Your task to perform on an android device: Play the new Taylor Swift video on YouTube Image 0: 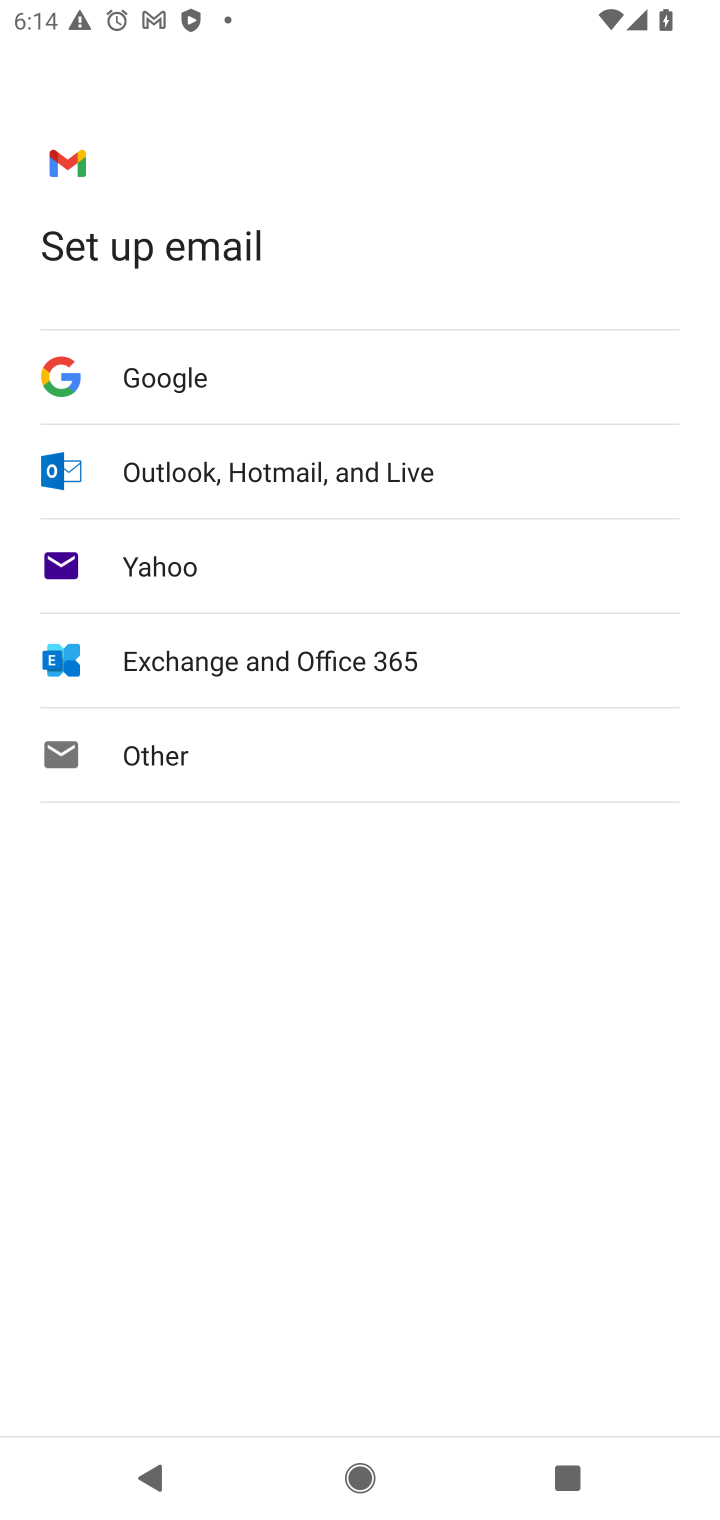
Step 0: press home button
Your task to perform on an android device: Play the new Taylor Swift video on YouTube Image 1: 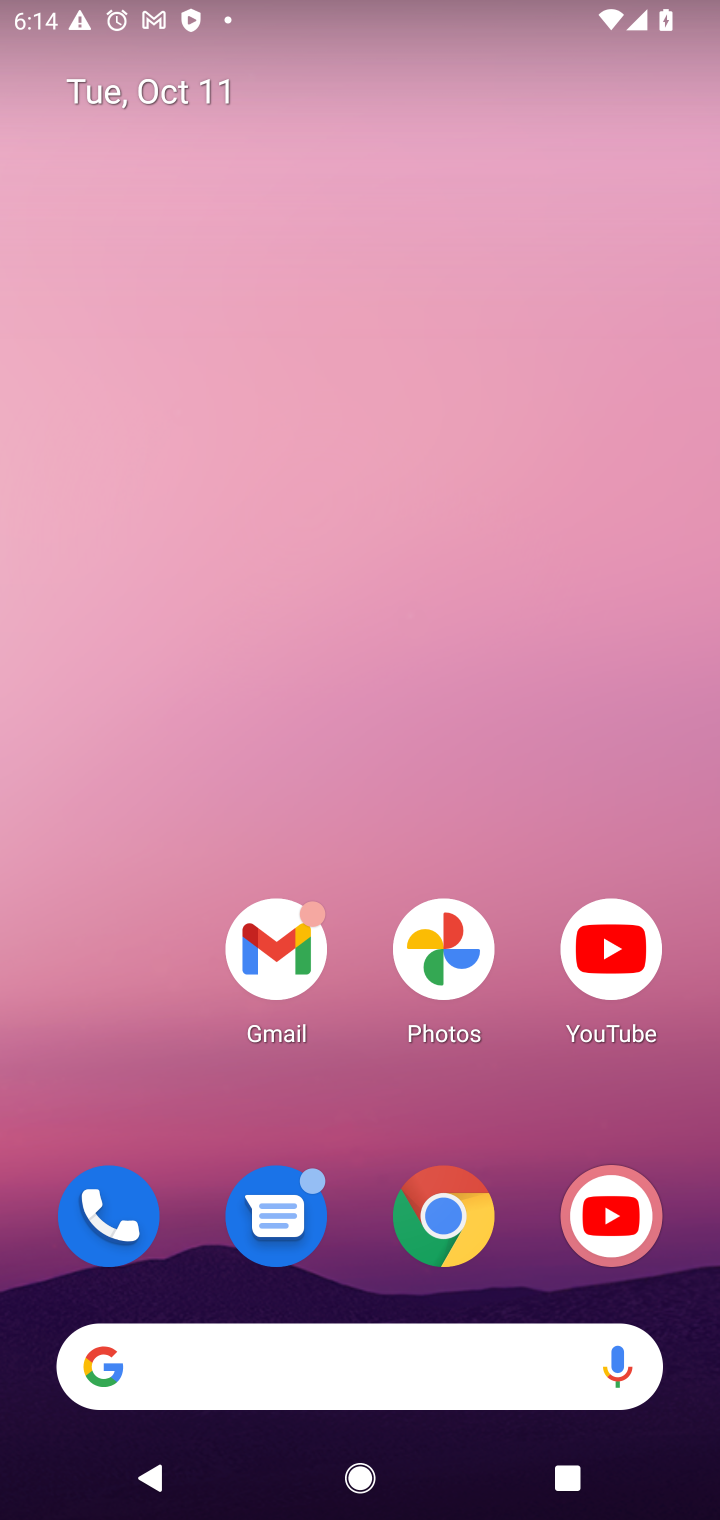
Step 1: click (593, 1204)
Your task to perform on an android device: Play the new Taylor Swift video on YouTube Image 2: 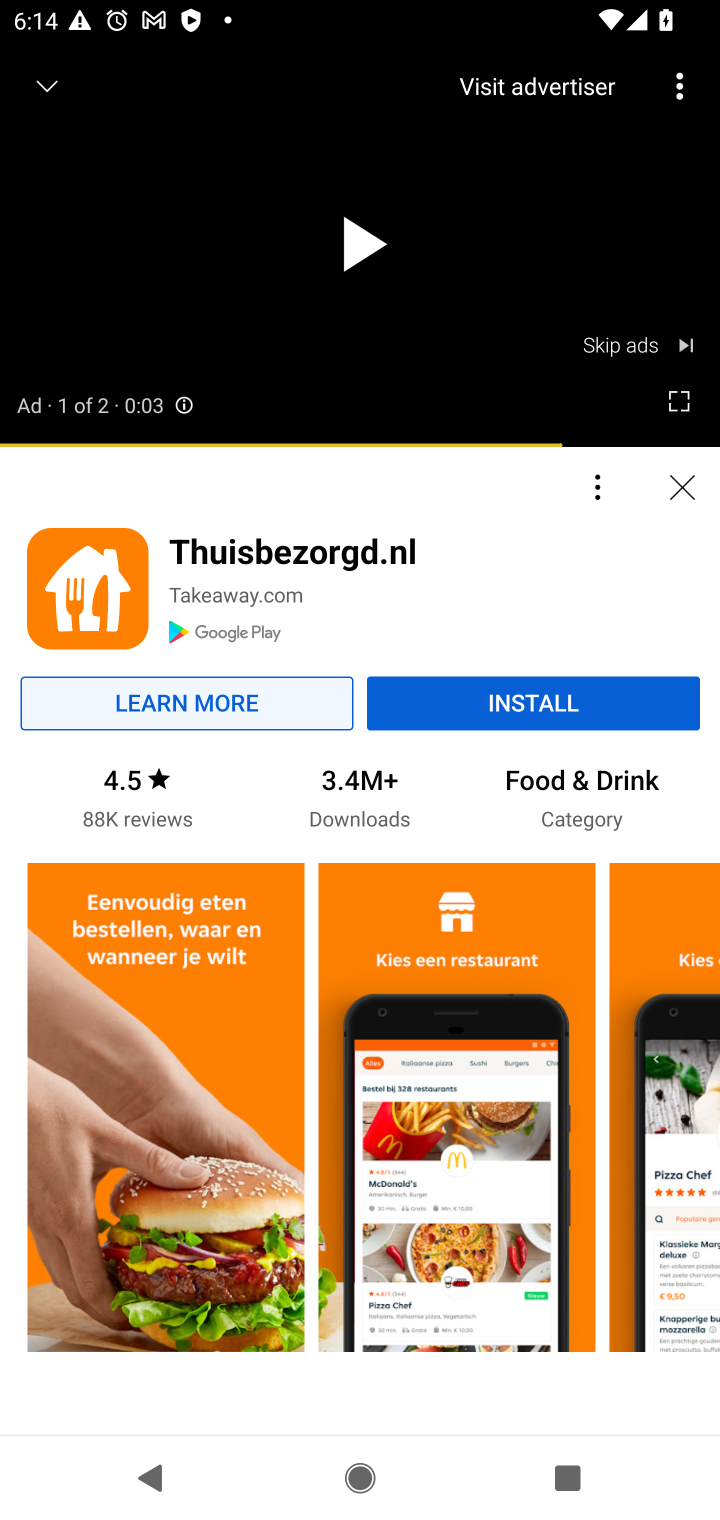
Step 2: click (49, 85)
Your task to perform on an android device: Play the new Taylor Swift video on YouTube Image 3: 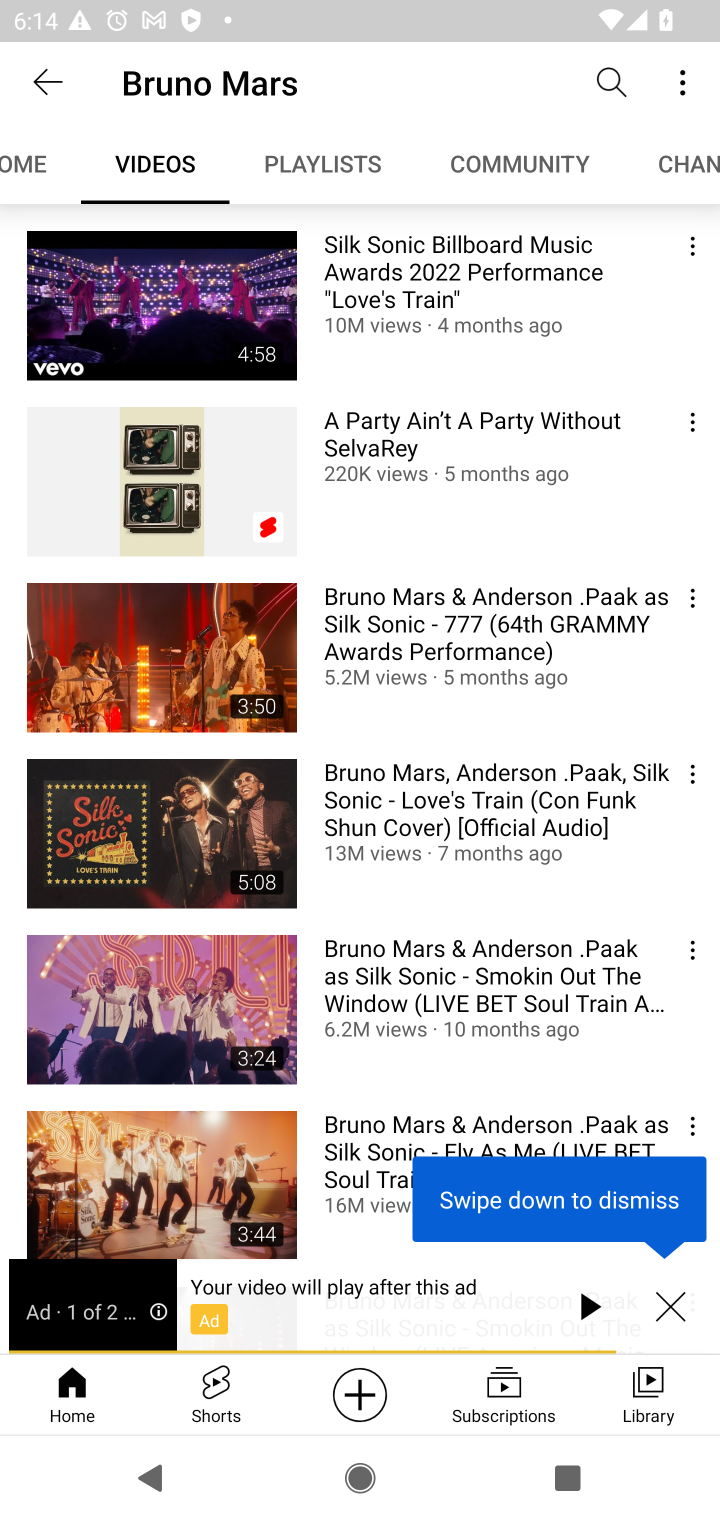
Step 3: click (67, 67)
Your task to perform on an android device: Play the new Taylor Swift video on YouTube Image 4: 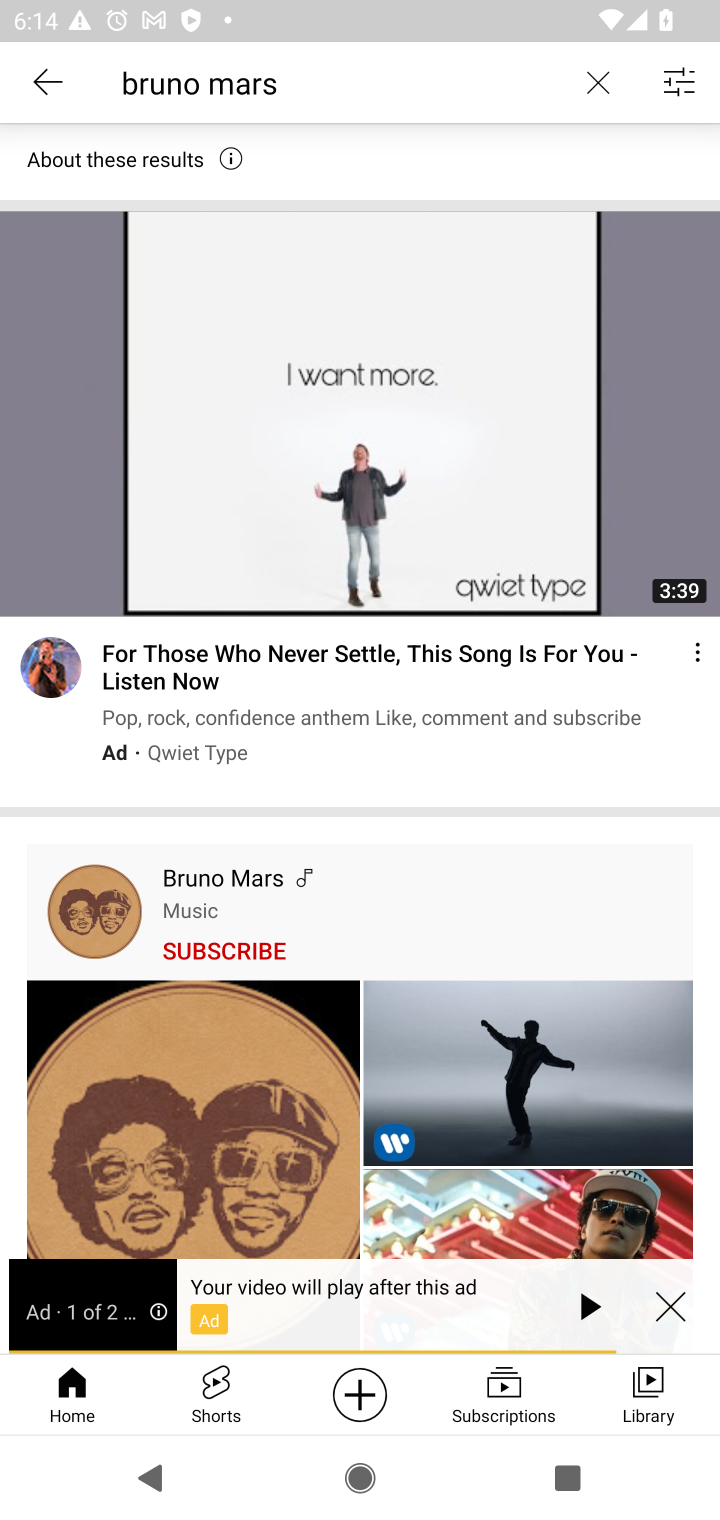
Step 4: click (595, 76)
Your task to perform on an android device: Play the new Taylor Swift video on YouTube Image 5: 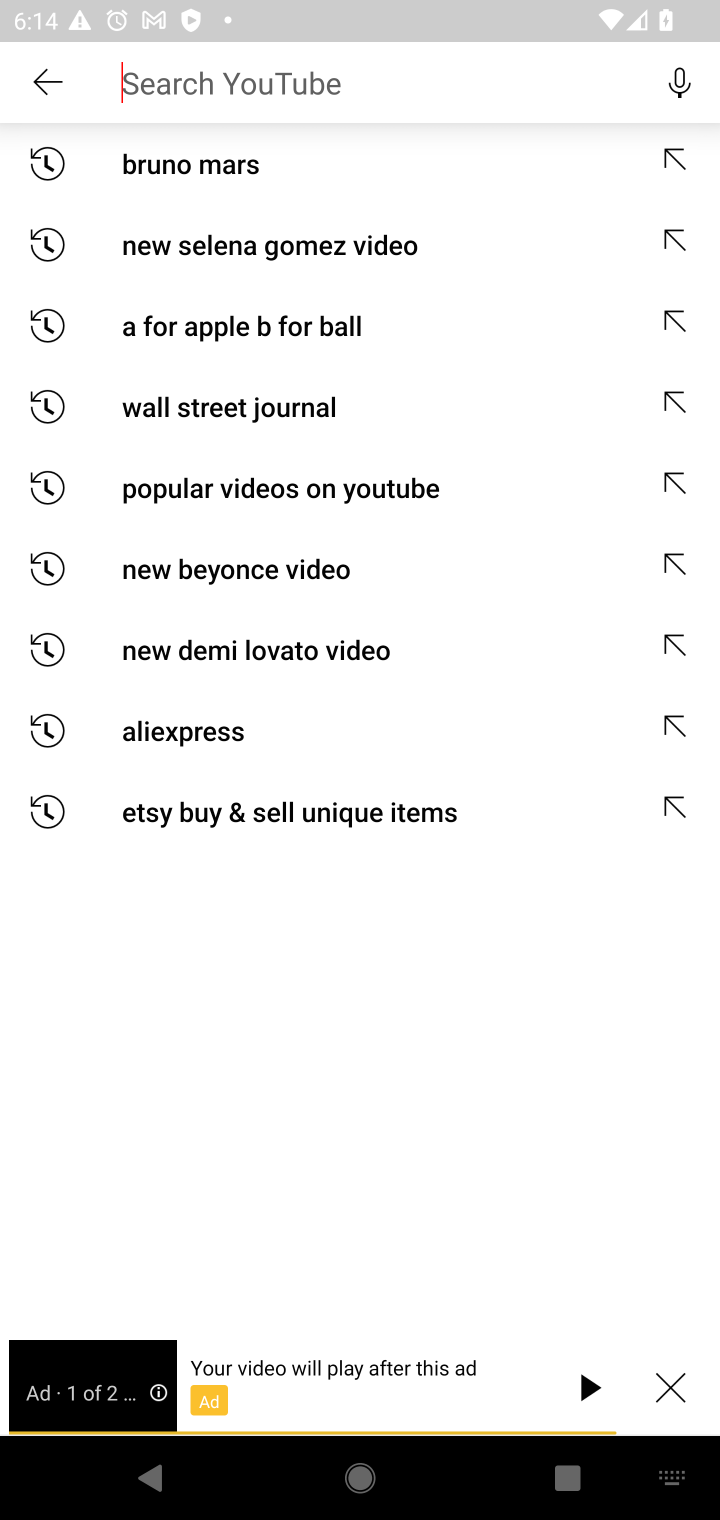
Step 5: type "taylor swift"
Your task to perform on an android device: Play the new Taylor Swift video on YouTube Image 6: 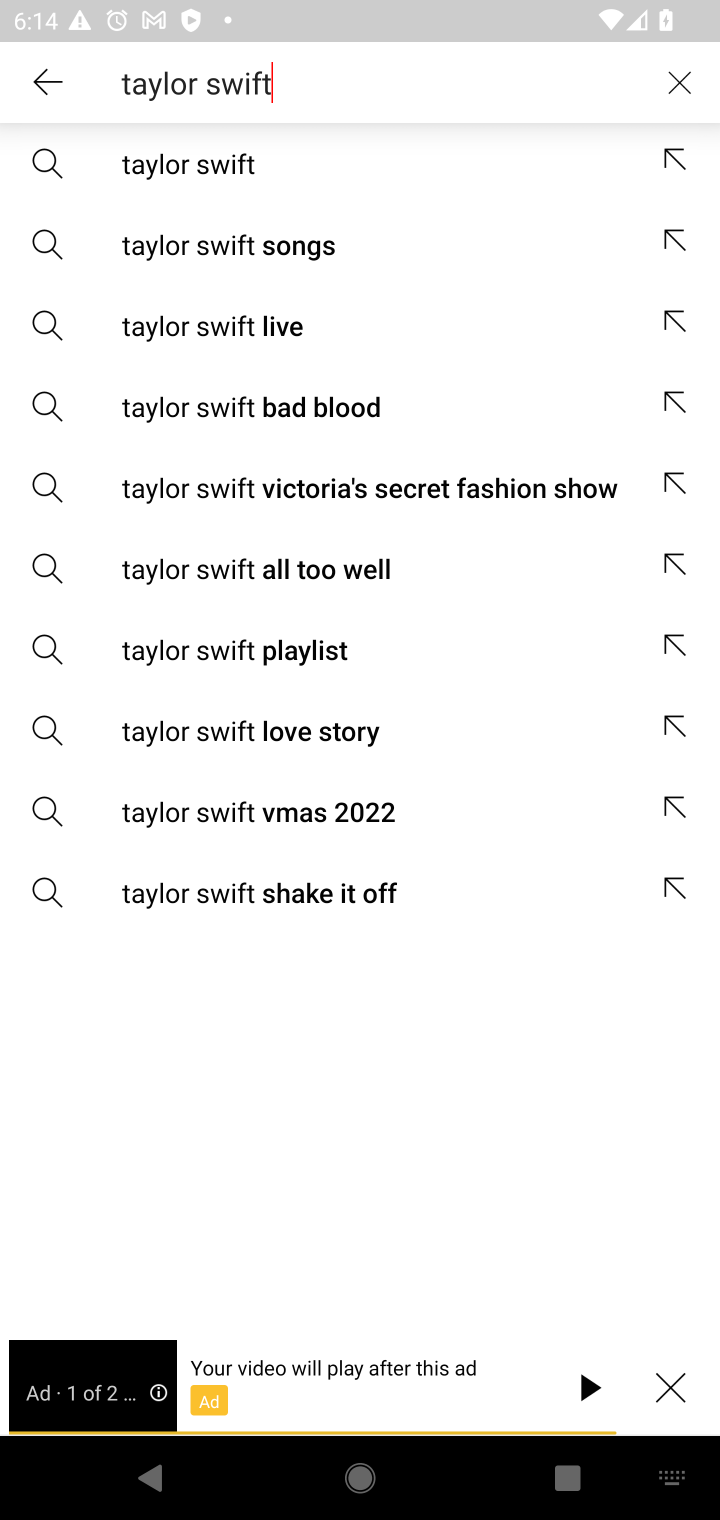
Step 6: click (165, 174)
Your task to perform on an android device: Play the new Taylor Swift video on YouTube Image 7: 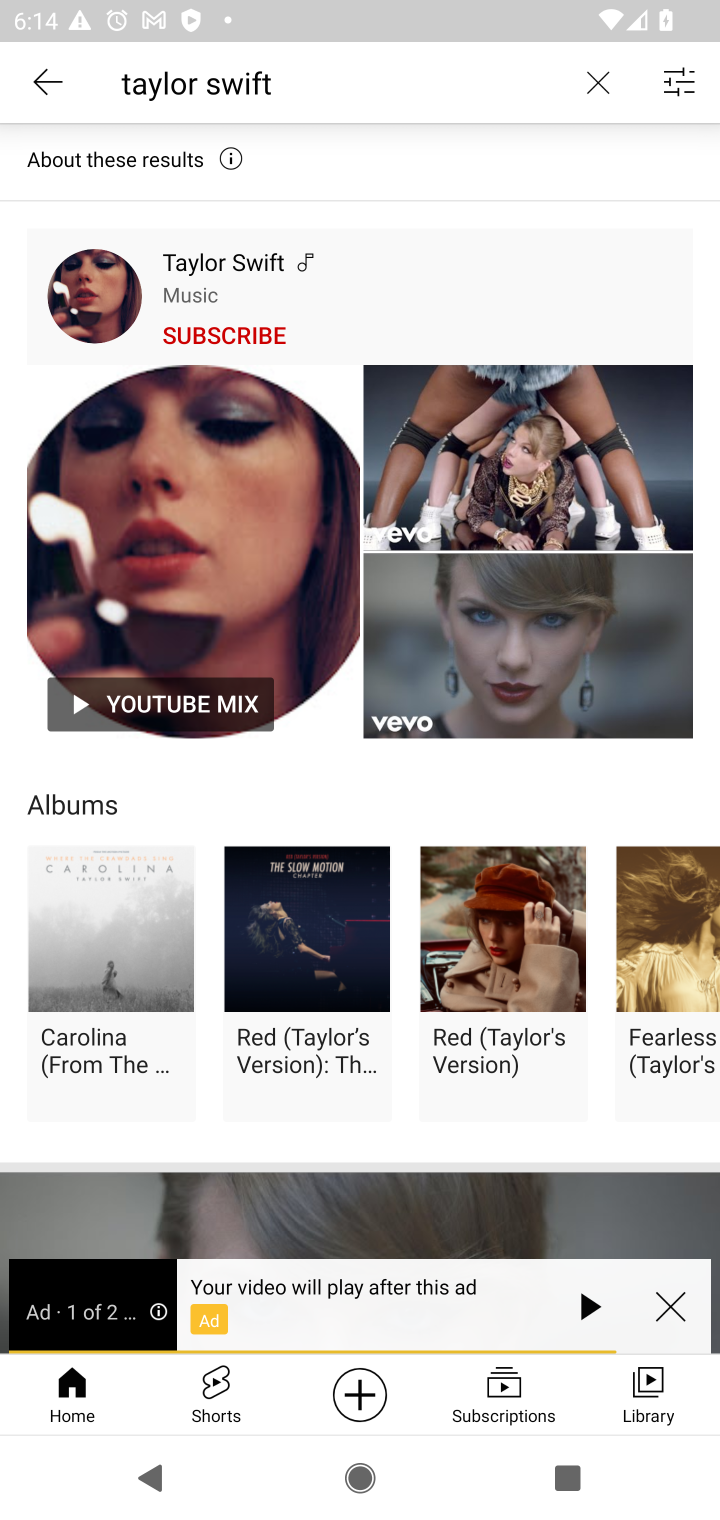
Step 7: click (91, 300)
Your task to perform on an android device: Play the new Taylor Swift video on YouTube Image 8: 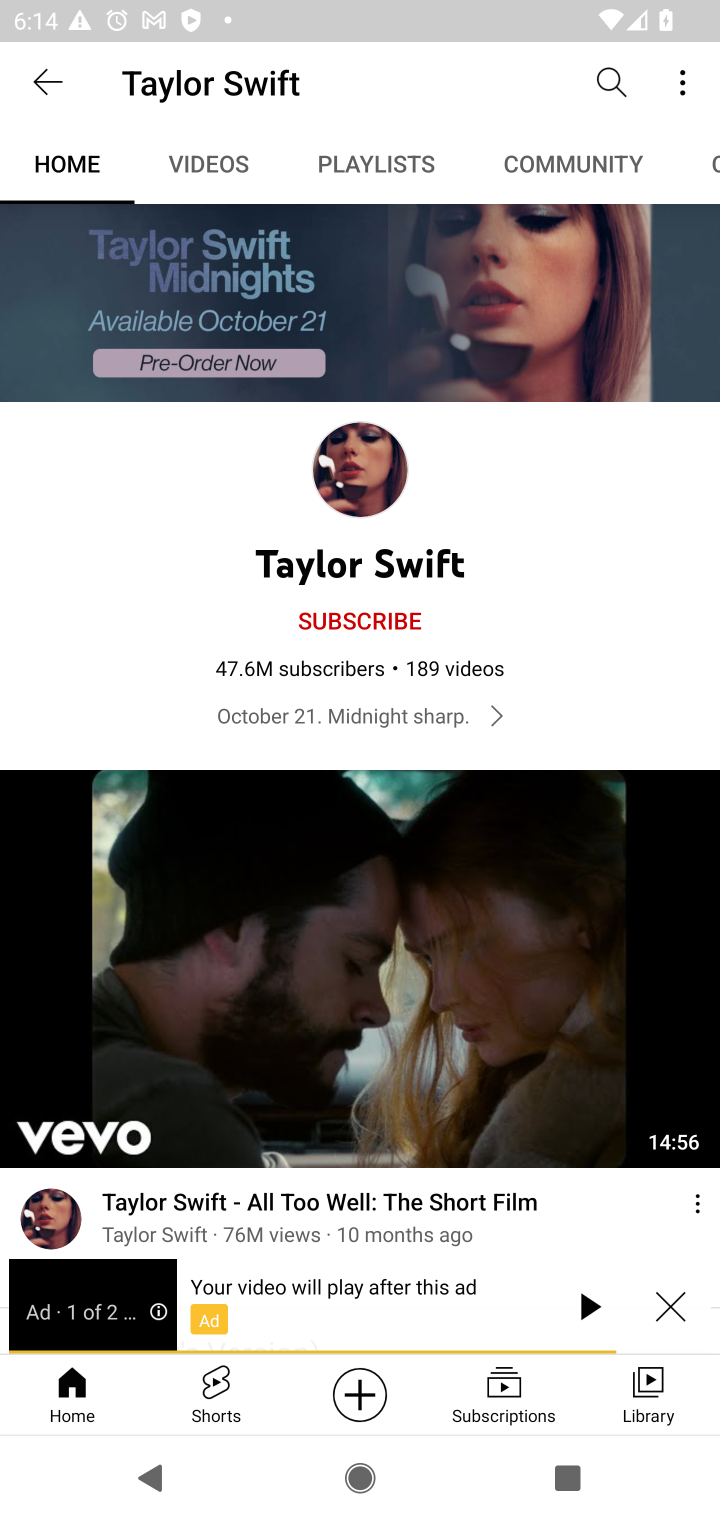
Step 8: click (374, 525)
Your task to perform on an android device: Play the new Taylor Swift video on YouTube Image 9: 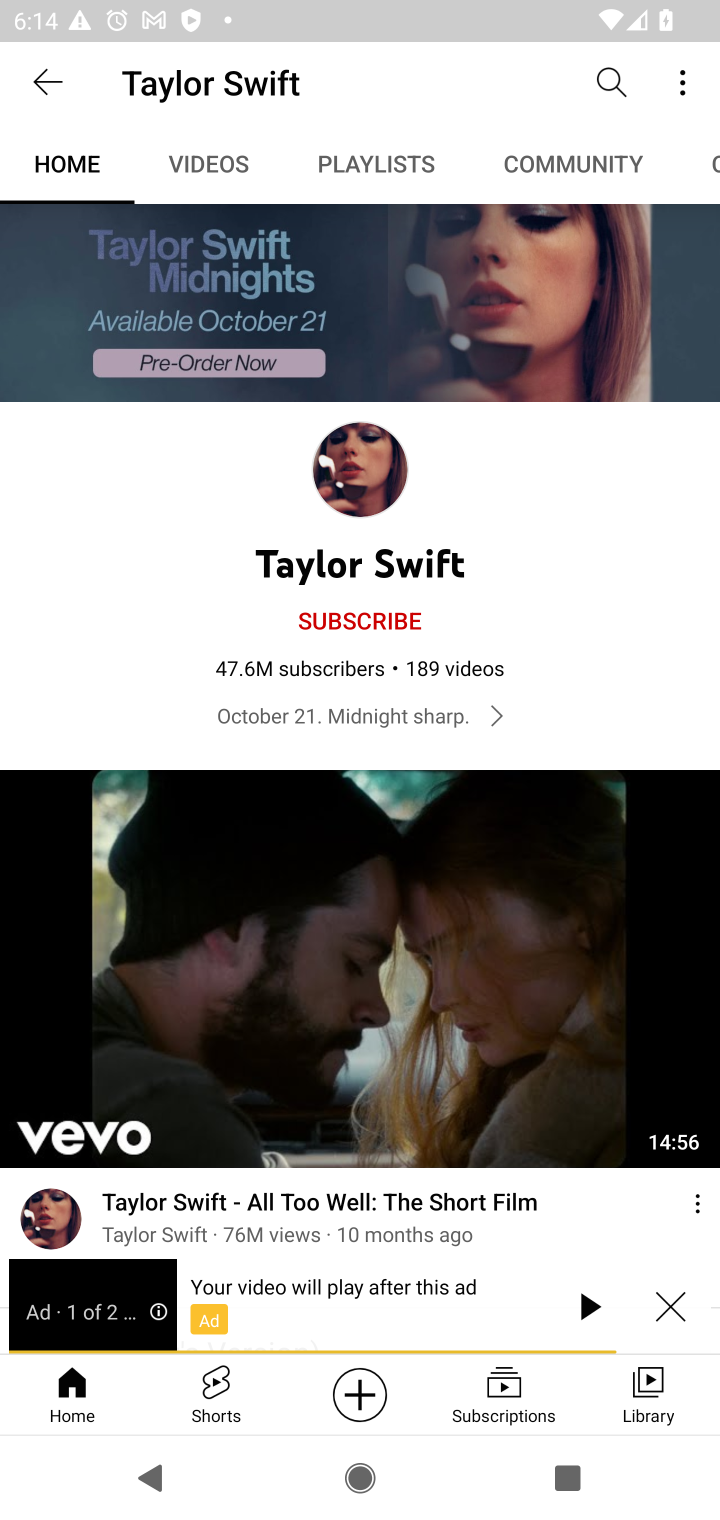
Step 9: click (198, 163)
Your task to perform on an android device: Play the new Taylor Swift video on YouTube Image 10: 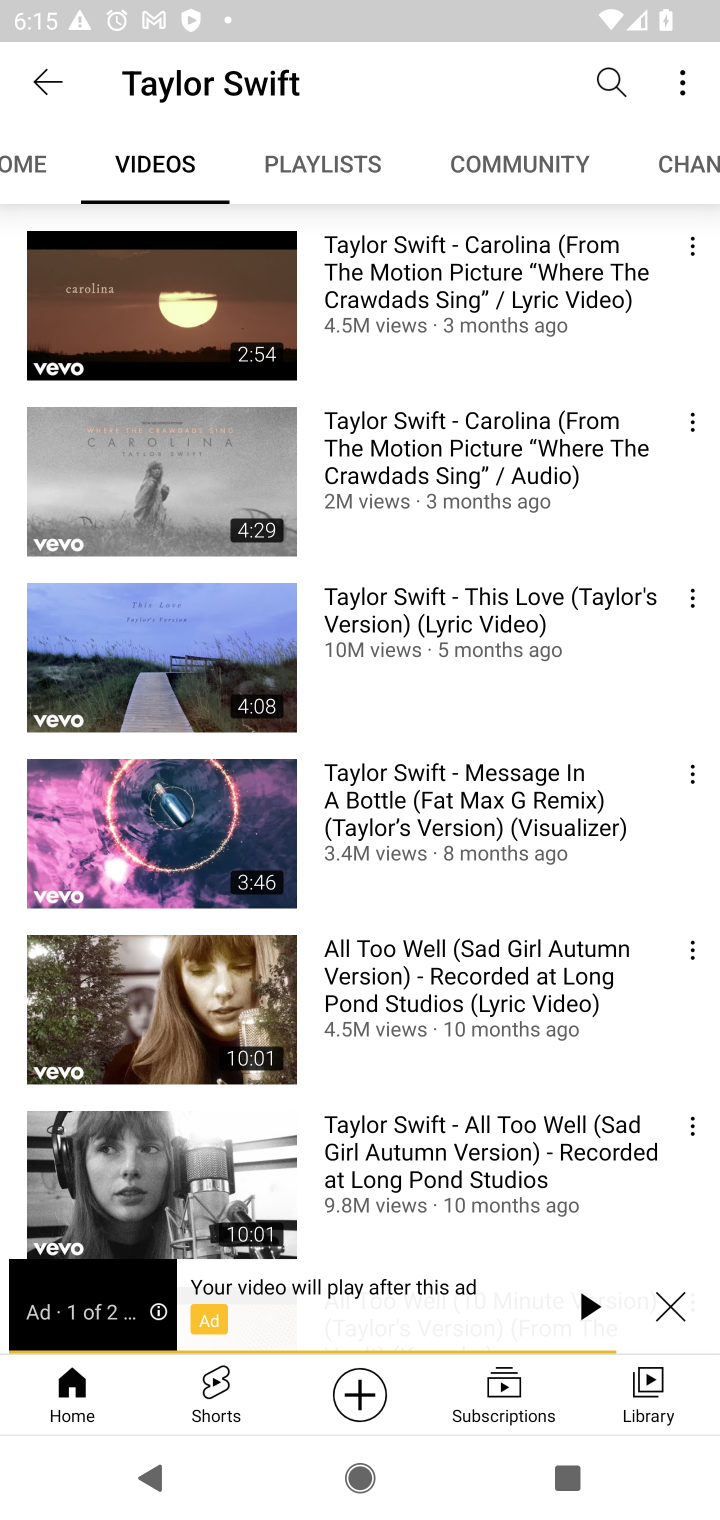
Step 10: click (243, 336)
Your task to perform on an android device: Play the new Taylor Swift video on YouTube Image 11: 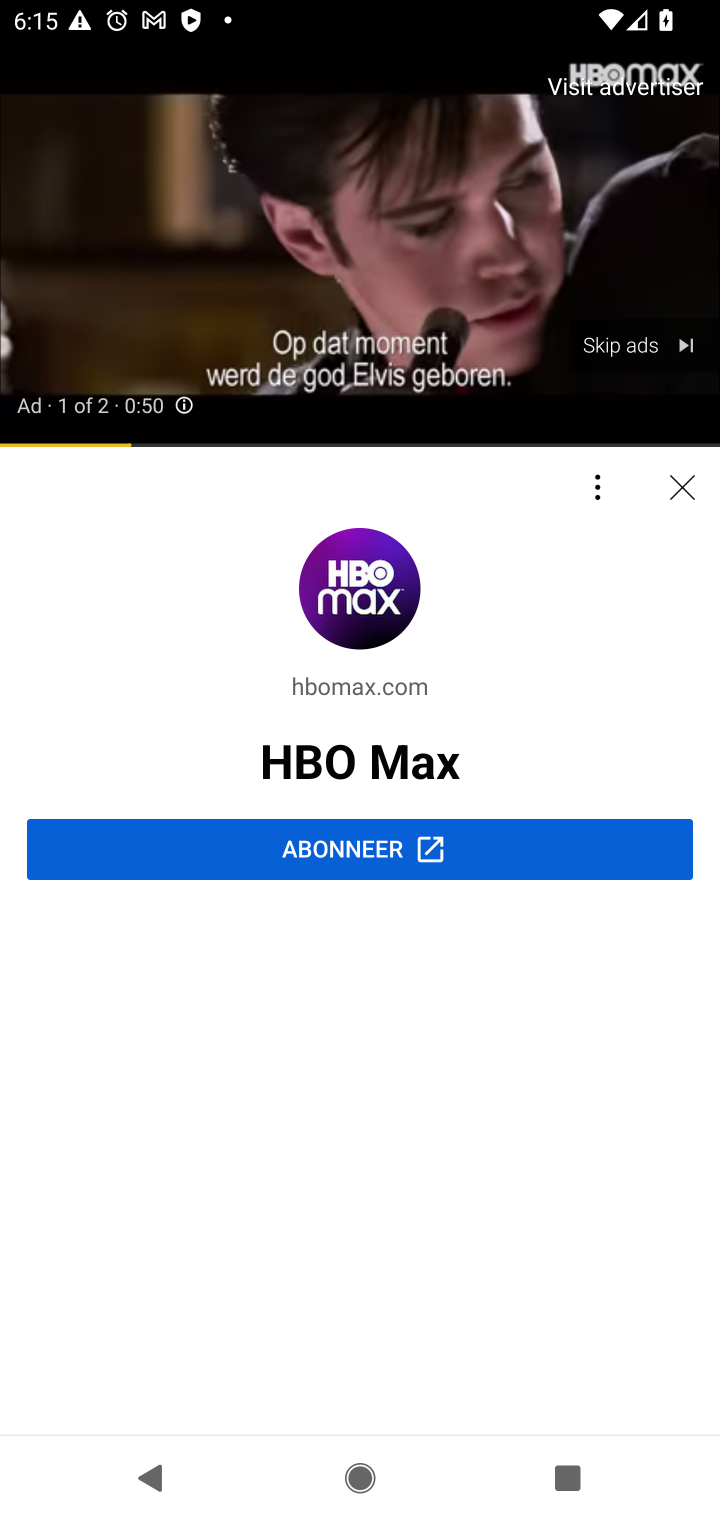
Step 11: click (652, 350)
Your task to perform on an android device: Play the new Taylor Swift video on YouTube Image 12: 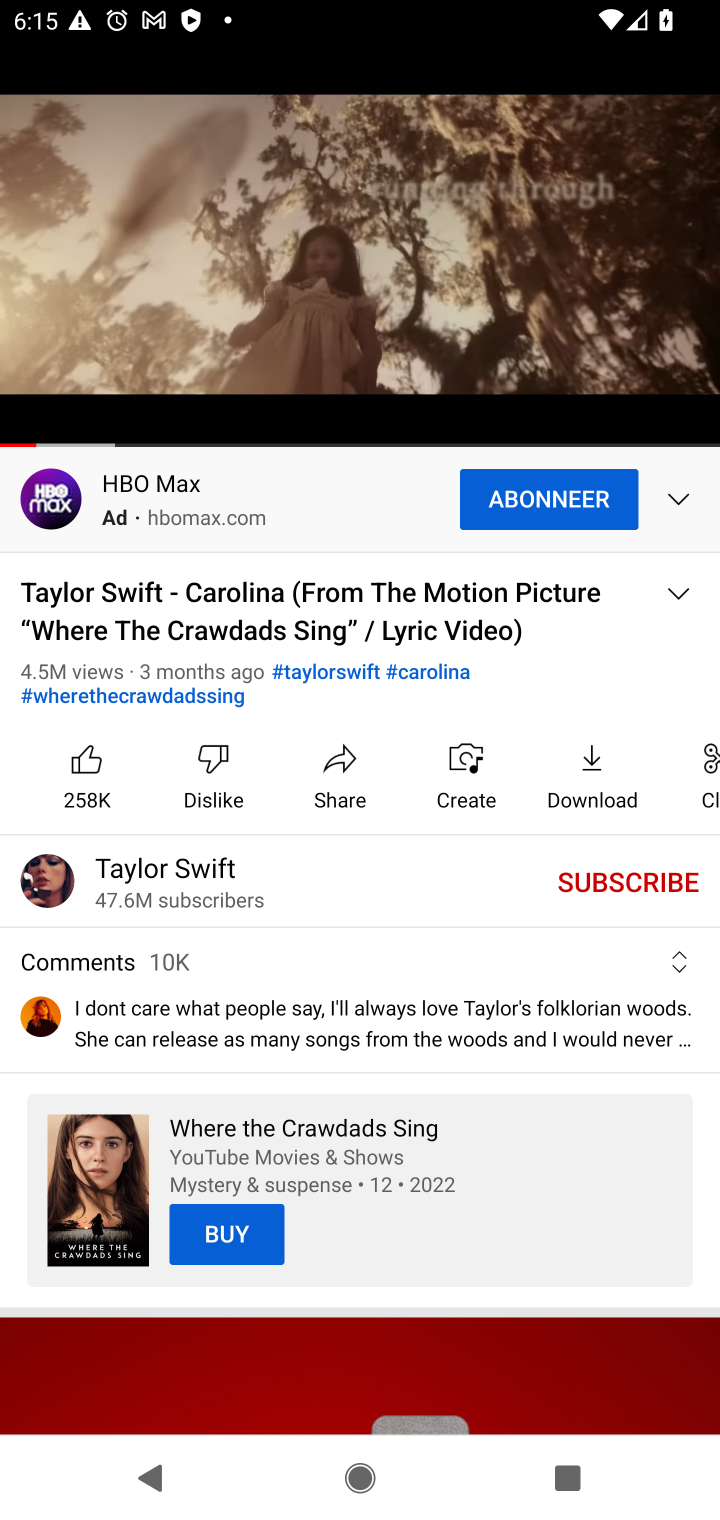
Step 12: task complete